Your task to perform on an android device: open wifi settings Image 0: 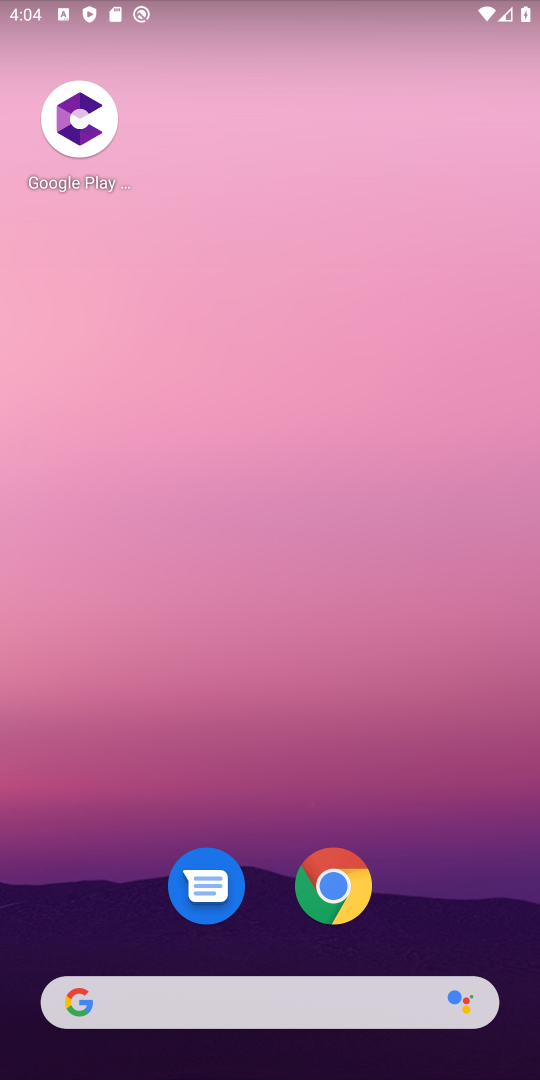
Step 0: drag from (320, 19) to (224, 708)
Your task to perform on an android device: open wifi settings Image 1: 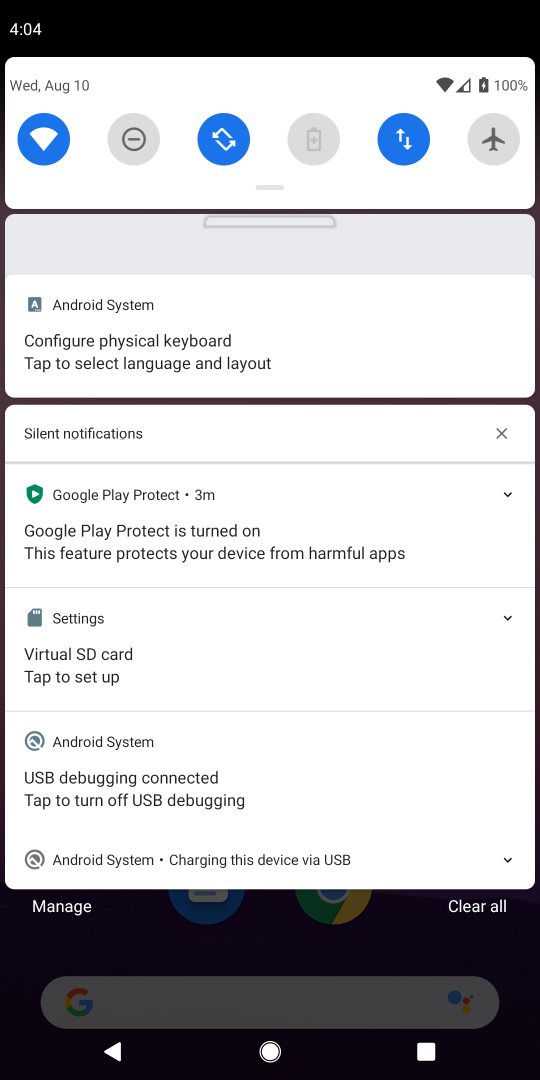
Step 1: click (29, 144)
Your task to perform on an android device: open wifi settings Image 2: 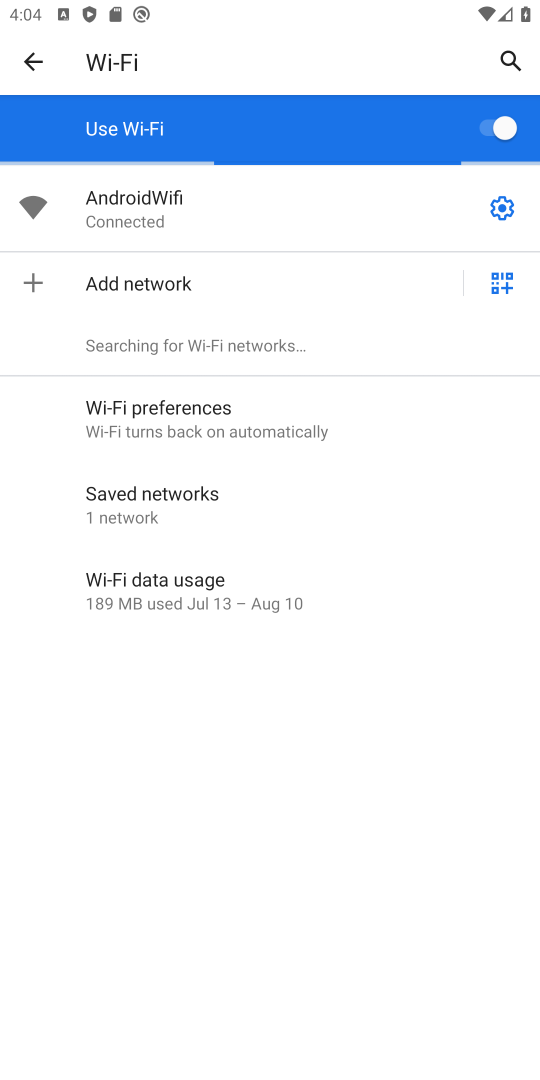
Step 2: click (500, 208)
Your task to perform on an android device: open wifi settings Image 3: 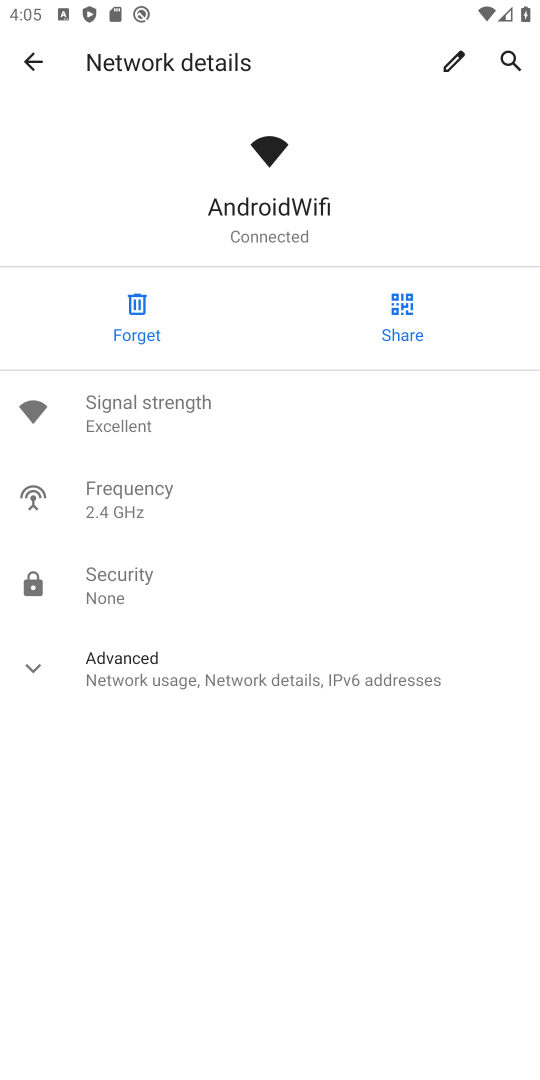
Step 3: task complete